Your task to perform on an android device: Check the weather Image 0: 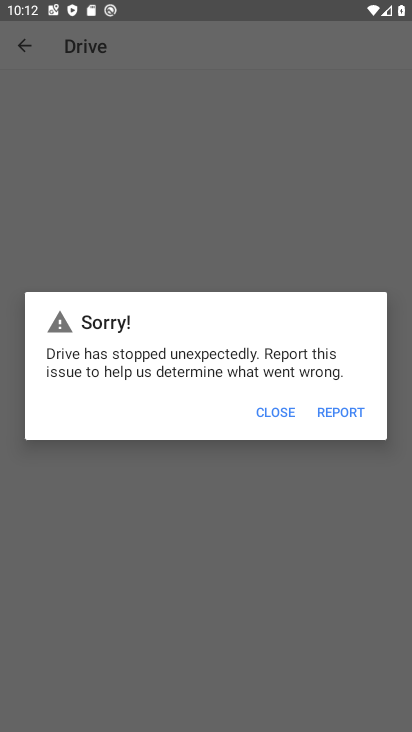
Step 0: press home button
Your task to perform on an android device: Check the weather Image 1: 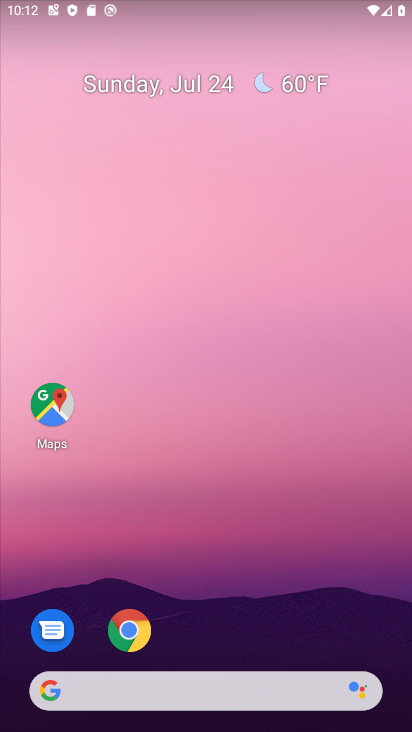
Step 1: click (195, 683)
Your task to perform on an android device: Check the weather Image 2: 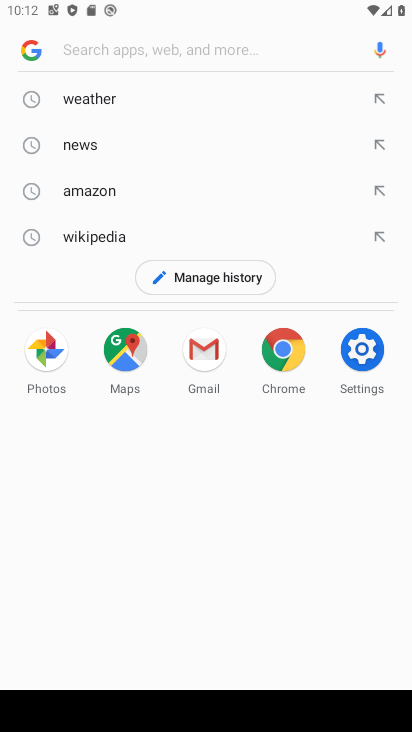
Step 2: click (89, 99)
Your task to perform on an android device: Check the weather Image 3: 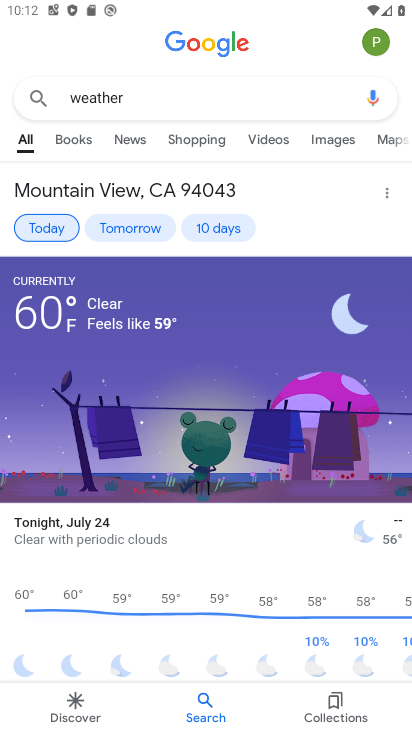
Step 3: task complete